Your task to perform on an android device: Open Google Chrome Image 0: 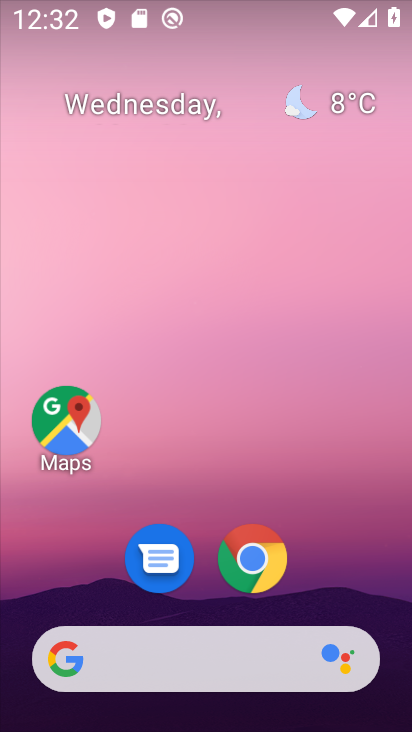
Step 0: drag from (326, 464) to (269, 77)
Your task to perform on an android device: Open Google Chrome Image 1: 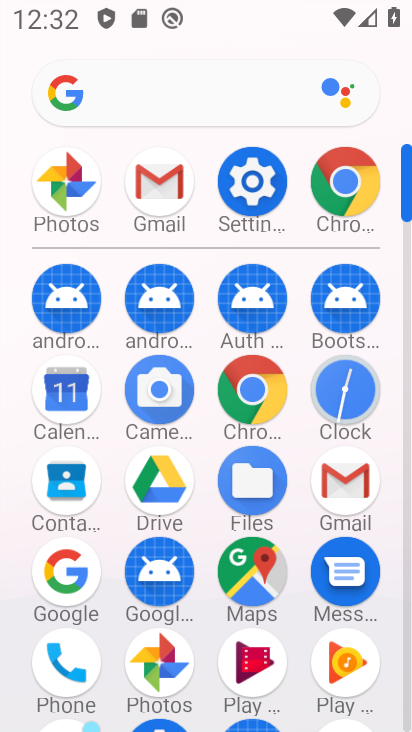
Step 1: click (343, 174)
Your task to perform on an android device: Open Google Chrome Image 2: 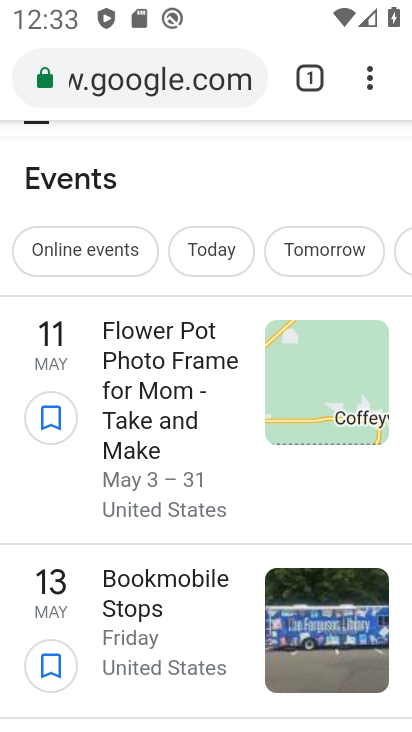
Step 2: task complete